Your task to perform on an android device: Open the calendar and show me this week's events Image 0: 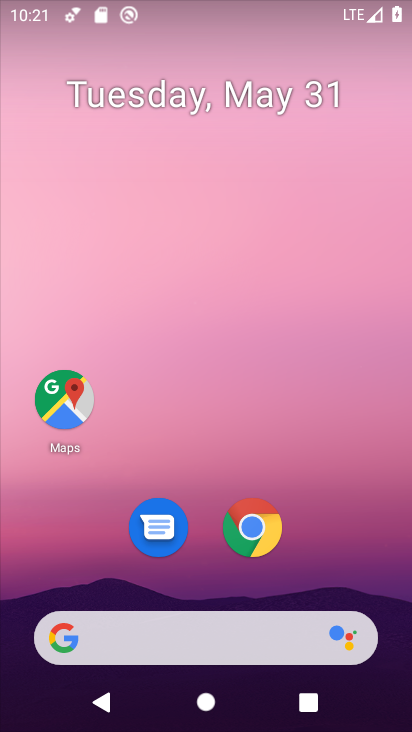
Step 0: drag from (366, 573) to (347, 5)
Your task to perform on an android device: Open the calendar and show me this week's events Image 1: 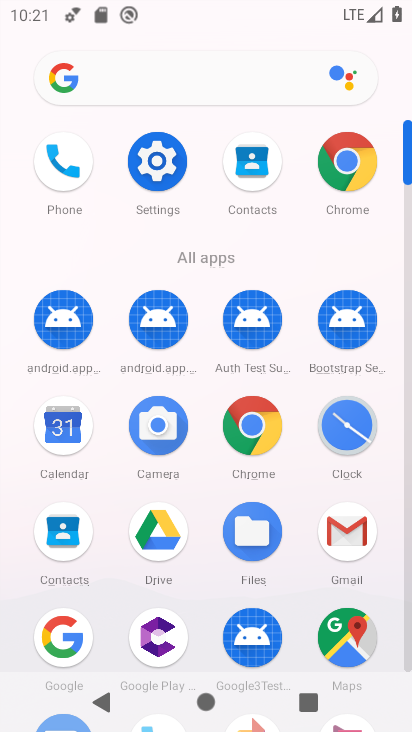
Step 1: click (74, 429)
Your task to perform on an android device: Open the calendar and show me this week's events Image 2: 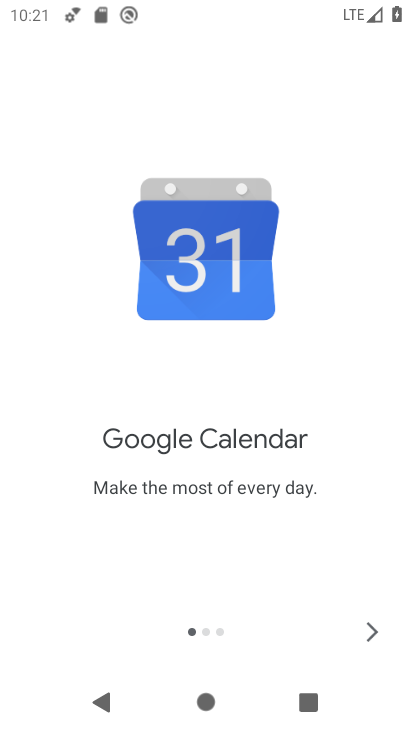
Step 2: click (365, 635)
Your task to perform on an android device: Open the calendar and show me this week's events Image 3: 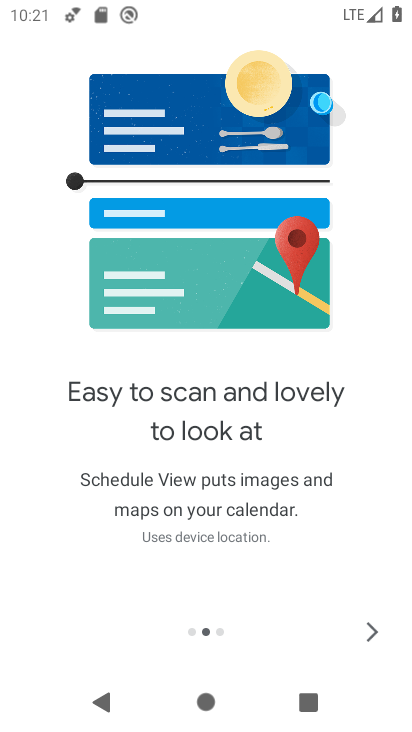
Step 3: click (365, 635)
Your task to perform on an android device: Open the calendar and show me this week's events Image 4: 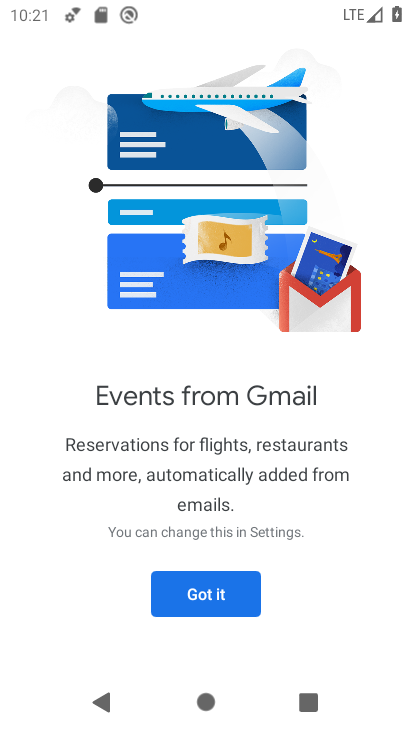
Step 4: click (177, 599)
Your task to perform on an android device: Open the calendar and show me this week's events Image 5: 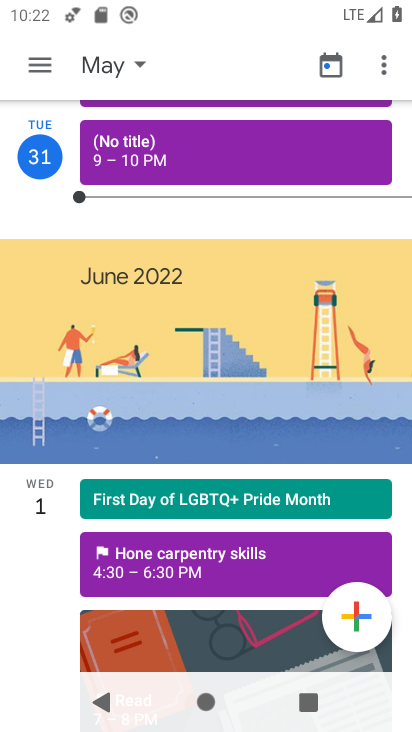
Step 5: click (36, 53)
Your task to perform on an android device: Open the calendar and show me this week's events Image 6: 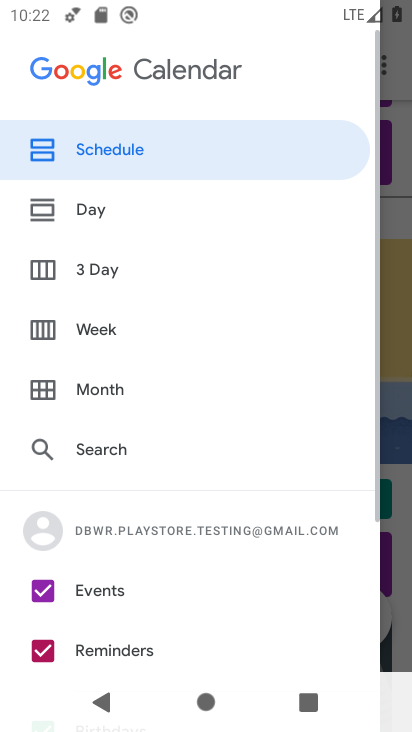
Step 6: drag from (101, 592) to (104, 273)
Your task to perform on an android device: Open the calendar and show me this week's events Image 7: 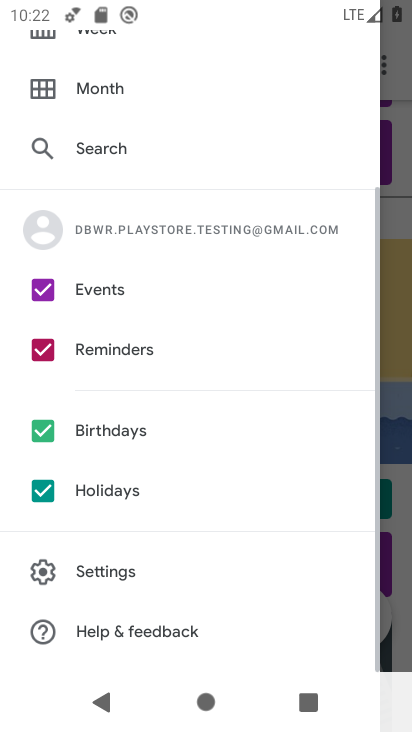
Step 7: click (41, 363)
Your task to perform on an android device: Open the calendar and show me this week's events Image 8: 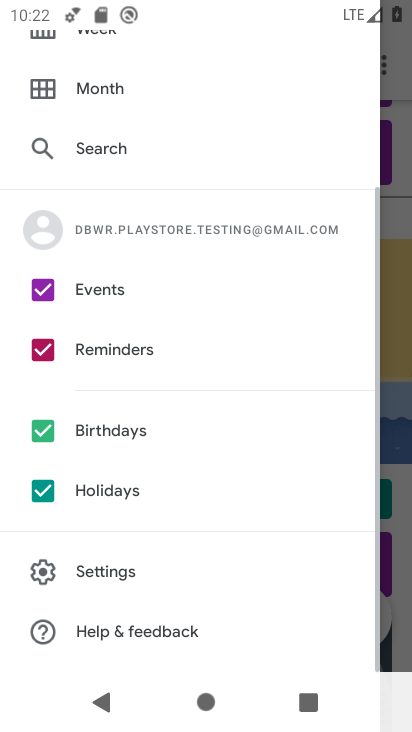
Step 8: click (49, 444)
Your task to perform on an android device: Open the calendar and show me this week's events Image 9: 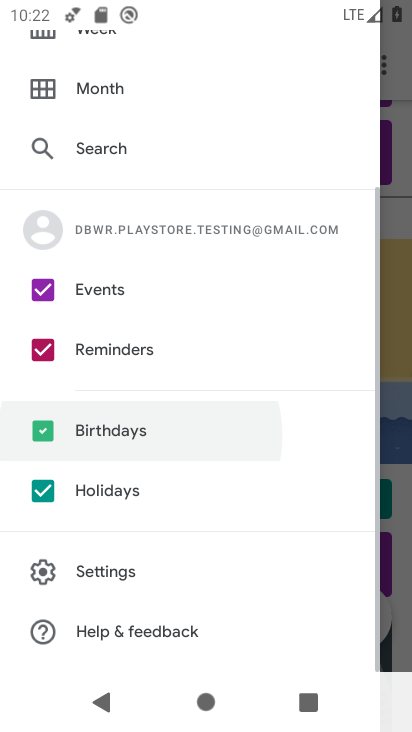
Step 9: click (50, 480)
Your task to perform on an android device: Open the calendar and show me this week's events Image 10: 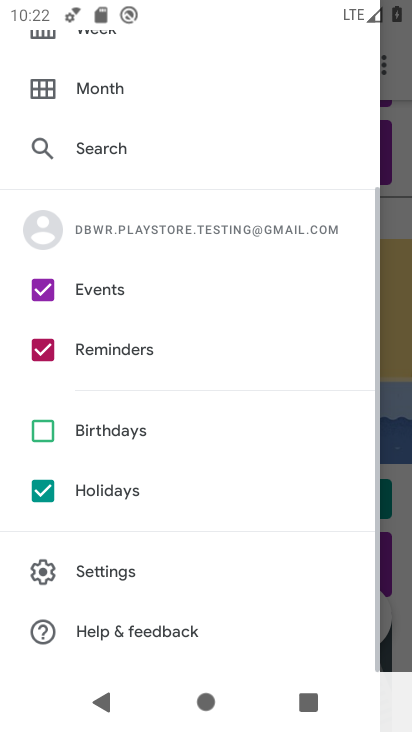
Step 10: click (48, 344)
Your task to perform on an android device: Open the calendar and show me this week's events Image 11: 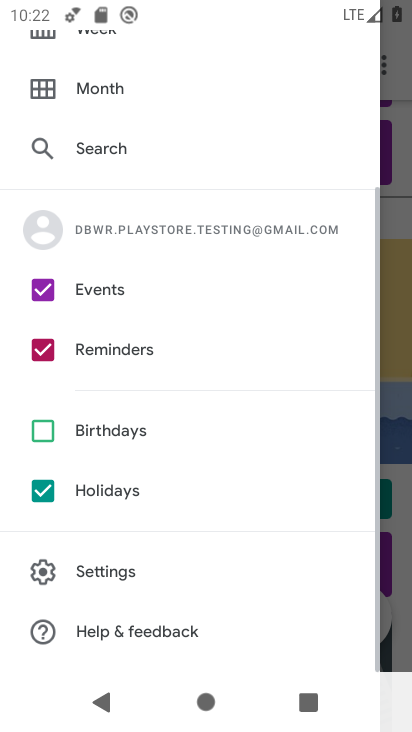
Step 11: click (39, 493)
Your task to perform on an android device: Open the calendar and show me this week's events Image 12: 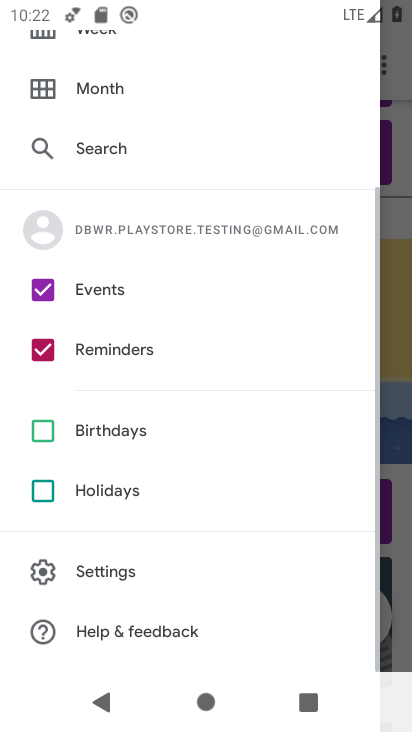
Step 12: click (49, 346)
Your task to perform on an android device: Open the calendar and show me this week's events Image 13: 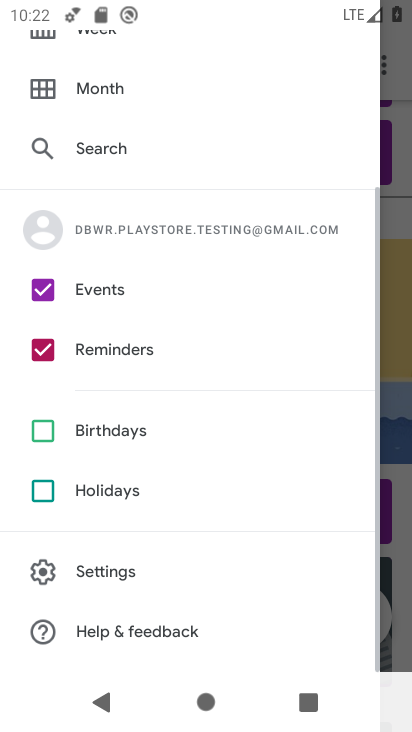
Step 13: click (39, 349)
Your task to perform on an android device: Open the calendar and show me this week's events Image 14: 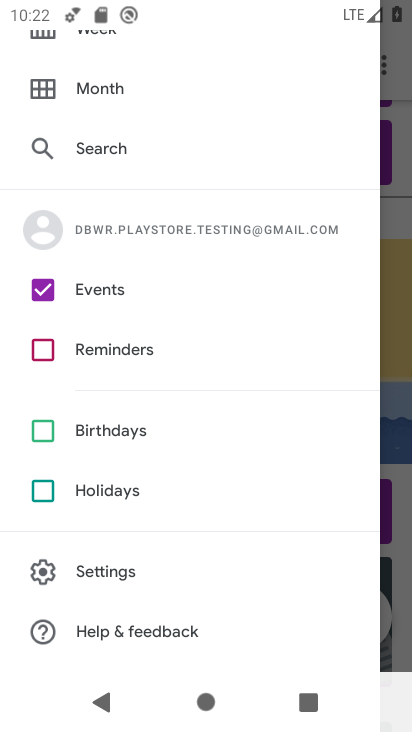
Step 14: drag from (203, 333) to (187, 563)
Your task to perform on an android device: Open the calendar and show me this week's events Image 15: 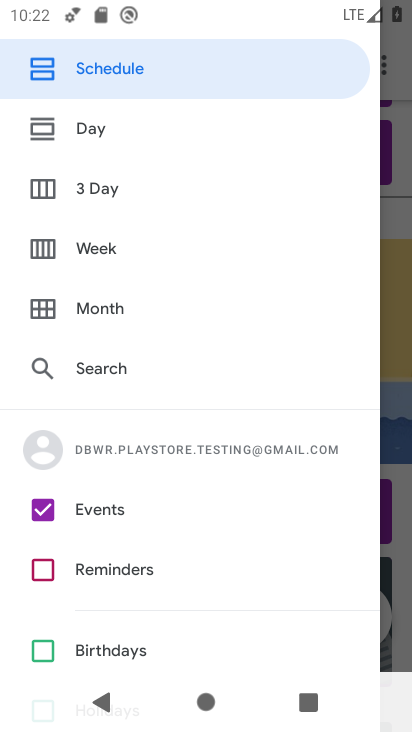
Step 15: click (47, 252)
Your task to perform on an android device: Open the calendar and show me this week's events Image 16: 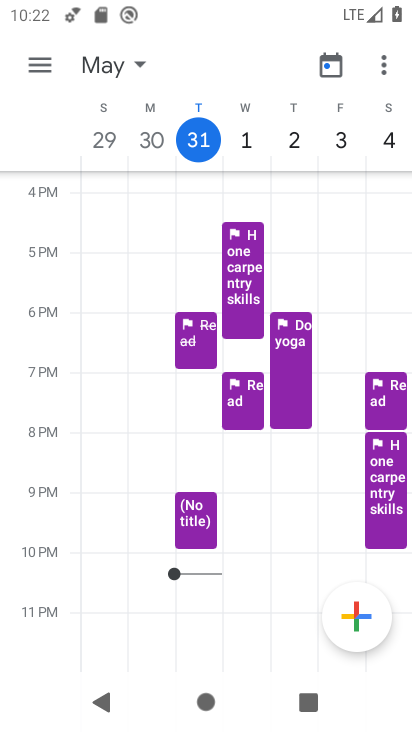
Step 16: task complete